Your task to perform on an android device: turn off sleep mode Image 0: 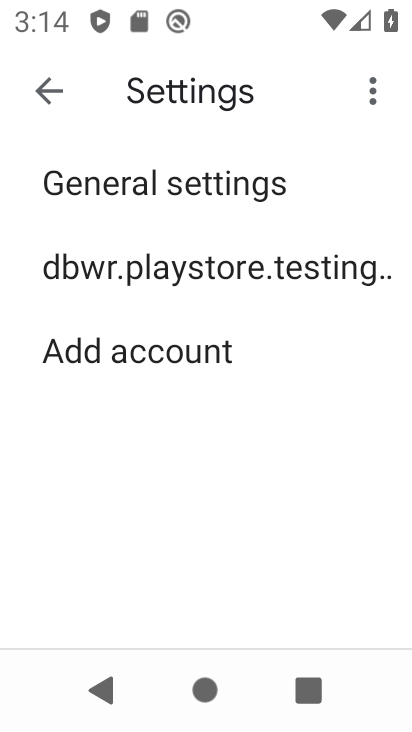
Step 0: press home button
Your task to perform on an android device: turn off sleep mode Image 1: 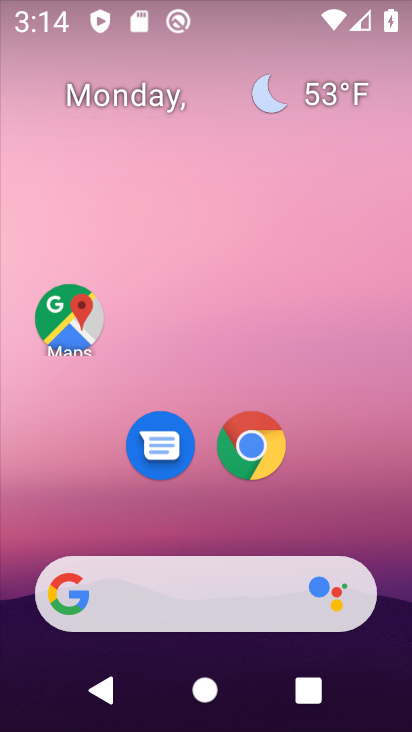
Step 1: drag from (181, 531) to (158, 31)
Your task to perform on an android device: turn off sleep mode Image 2: 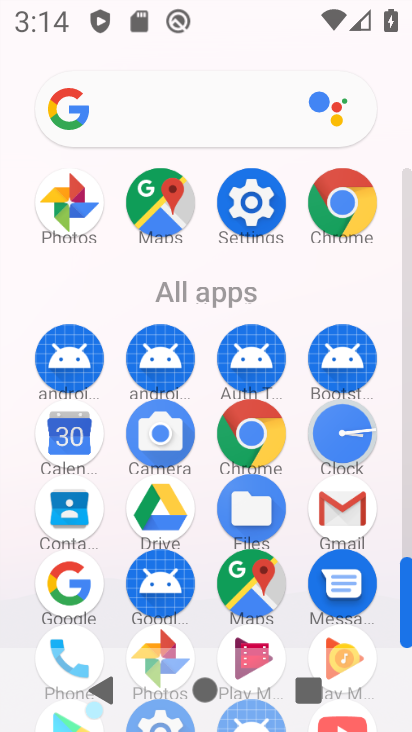
Step 2: click (259, 206)
Your task to perform on an android device: turn off sleep mode Image 3: 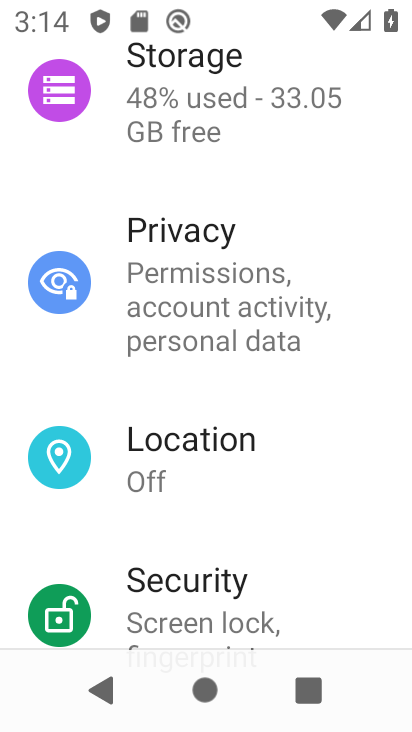
Step 3: drag from (205, 114) to (230, 723)
Your task to perform on an android device: turn off sleep mode Image 4: 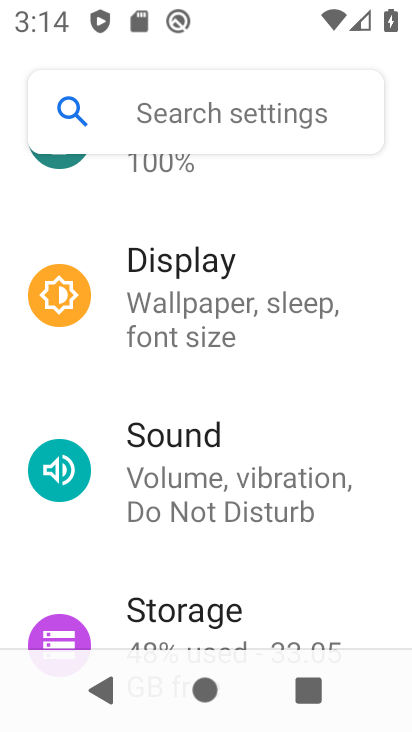
Step 4: click (197, 97)
Your task to perform on an android device: turn off sleep mode Image 5: 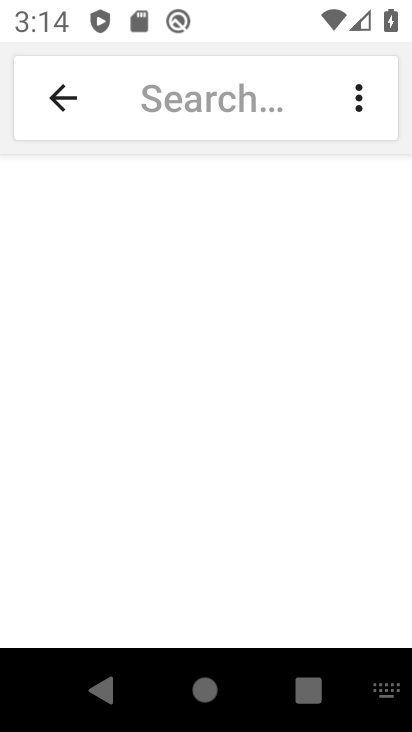
Step 5: type "sleep mode"
Your task to perform on an android device: turn off sleep mode Image 6: 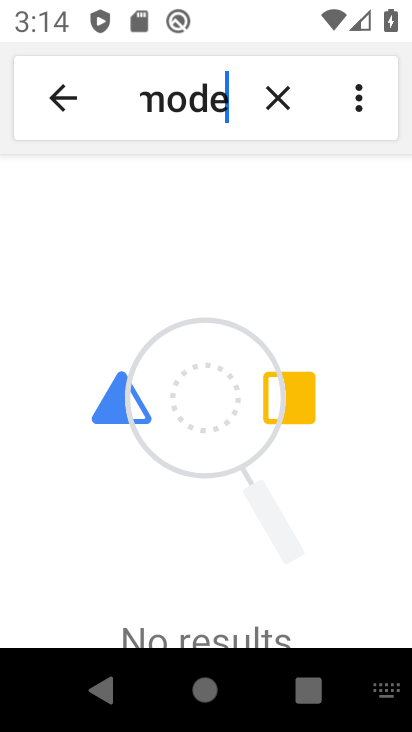
Step 6: task complete